Your task to perform on an android device: turn notification dots off Image 0: 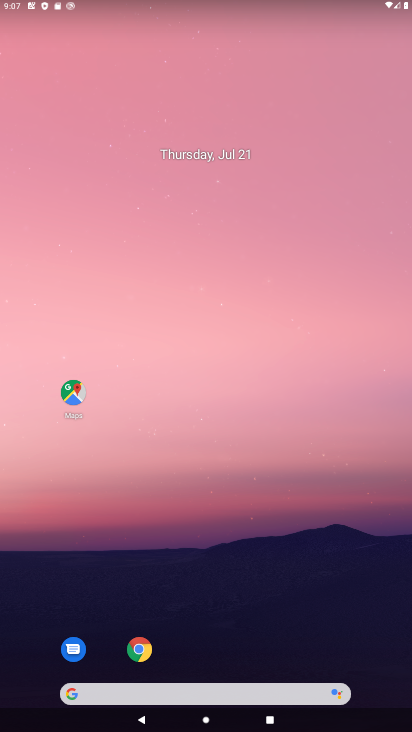
Step 0: drag from (242, 332) to (268, 153)
Your task to perform on an android device: turn notification dots off Image 1: 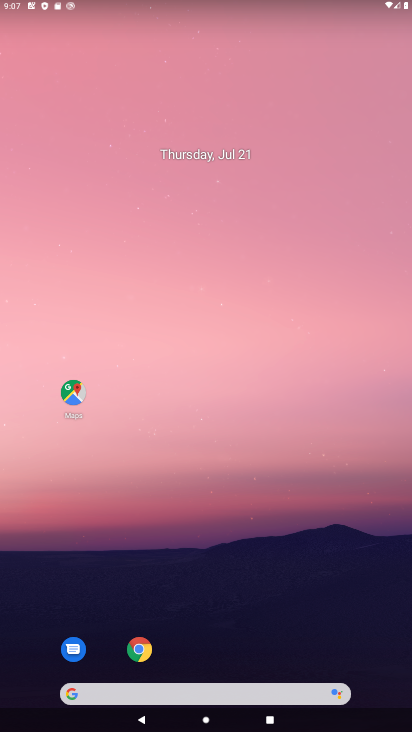
Step 1: drag from (290, 411) to (308, 12)
Your task to perform on an android device: turn notification dots off Image 2: 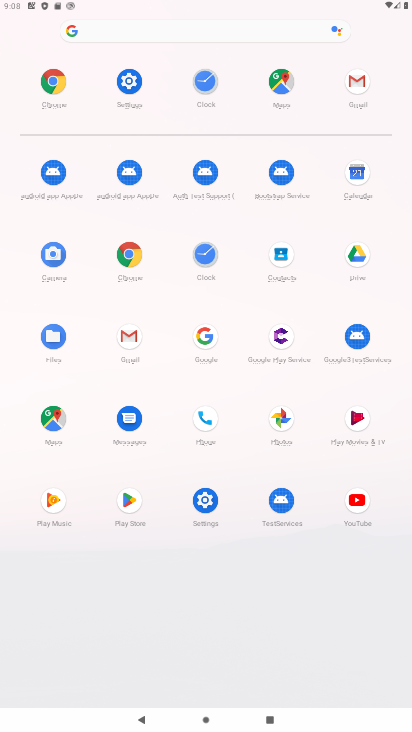
Step 2: click (203, 504)
Your task to perform on an android device: turn notification dots off Image 3: 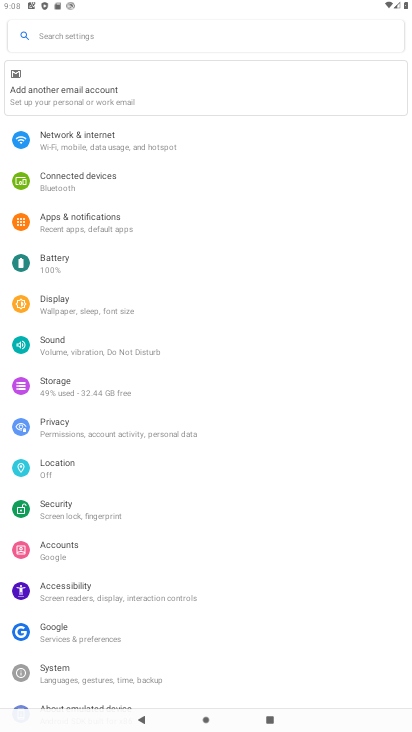
Step 3: click (108, 229)
Your task to perform on an android device: turn notification dots off Image 4: 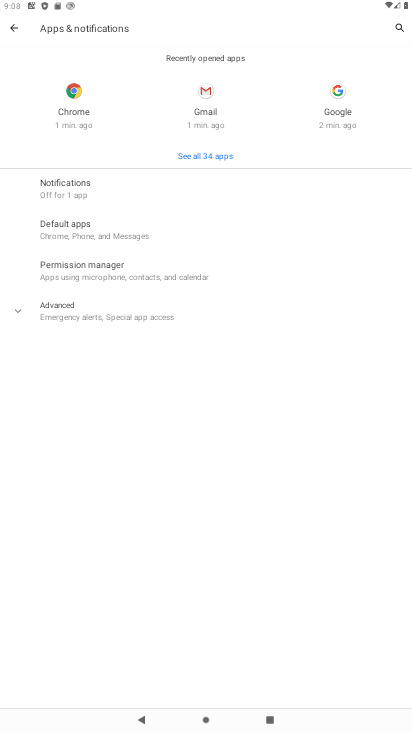
Step 4: click (90, 192)
Your task to perform on an android device: turn notification dots off Image 5: 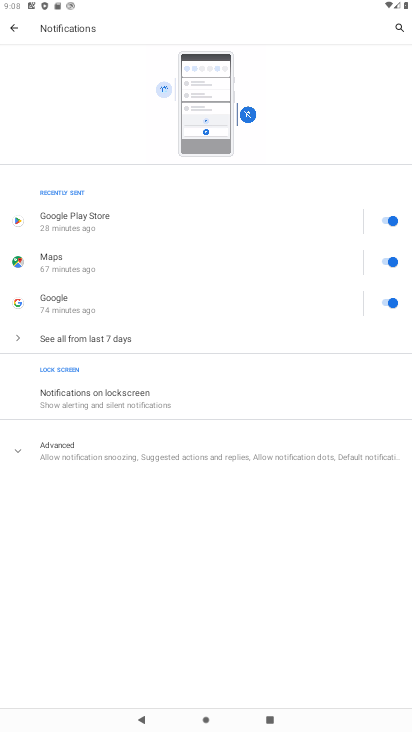
Step 5: click (134, 449)
Your task to perform on an android device: turn notification dots off Image 6: 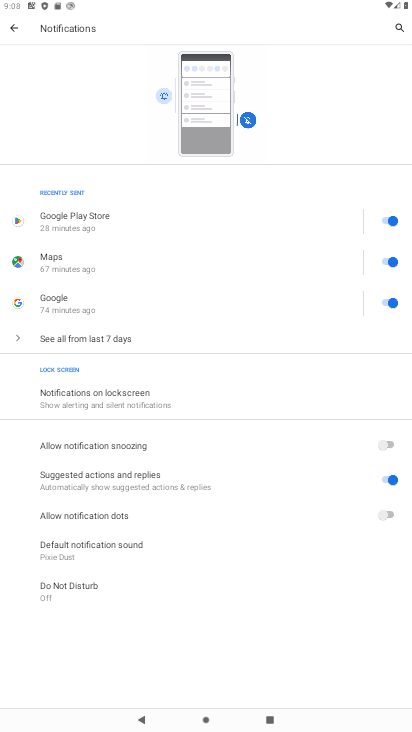
Step 6: task complete